Your task to perform on an android device: What's on my calendar today? Image 0: 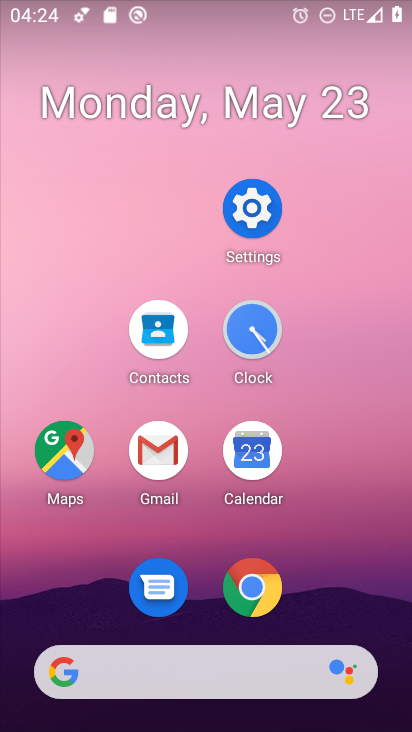
Step 0: click (268, 454)
Your task to perform on an android device: What's on my calendar today? Image 1: 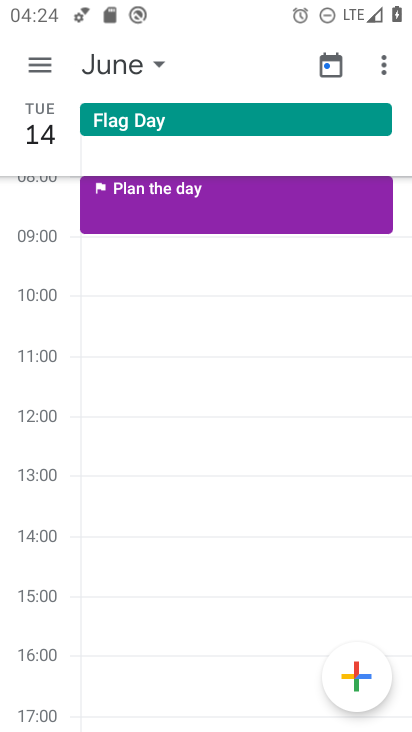
Step 1: click (160, 67)
Your task to perform on an android device: What's on my calendar today? Image 2: 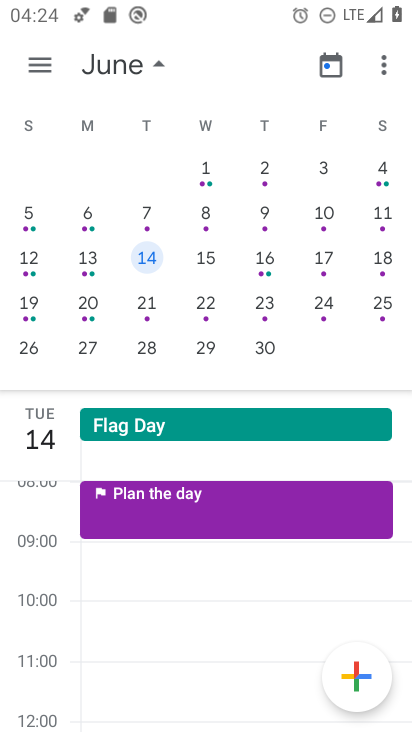
Step 2: task complete